Your task to perform on an android device: Is it going to rain this weekend? Image 0: 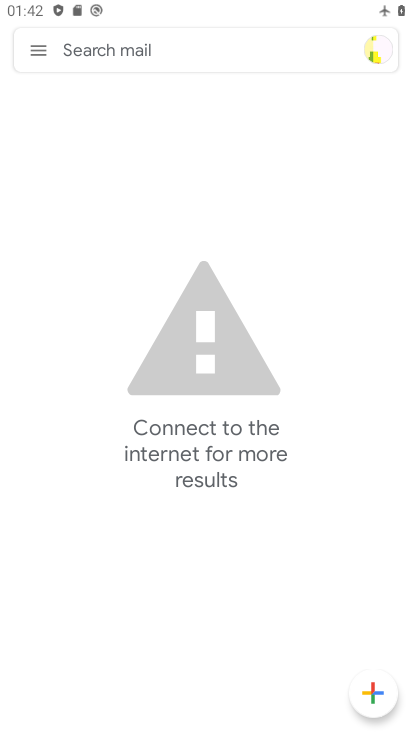
Step 0: press home button
Your task to perform on an android device: Is it going to rain this weekend? Image 1: 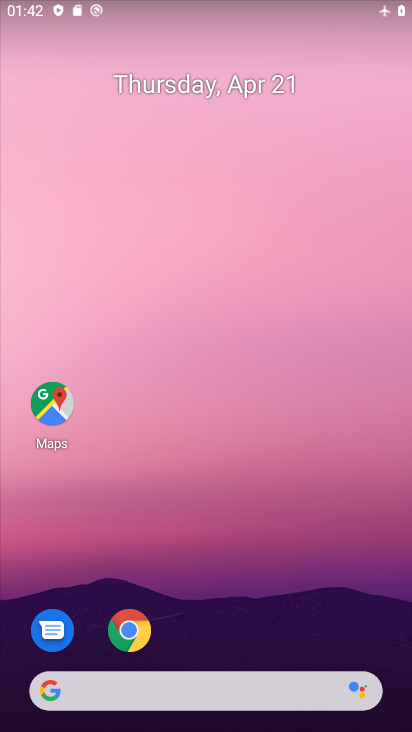
Step 1: drag from (266, 574) to (270, 47)
Your task to perform on an android device: Is it going to rain this weekend? Image 2: 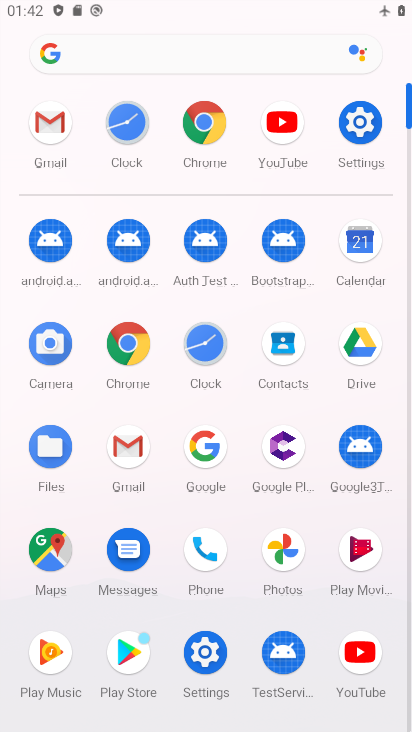
Step 2: click (169, 58)
Your task to perform on an android device: Is it going to rain this weekend? Image 3: 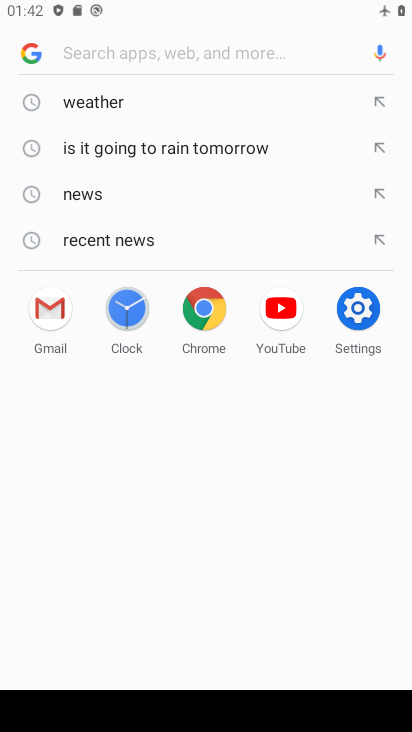
Step 3: click (163, 154)
Your task to perform on an android device: Is it going to rain this weekend? Image 4: 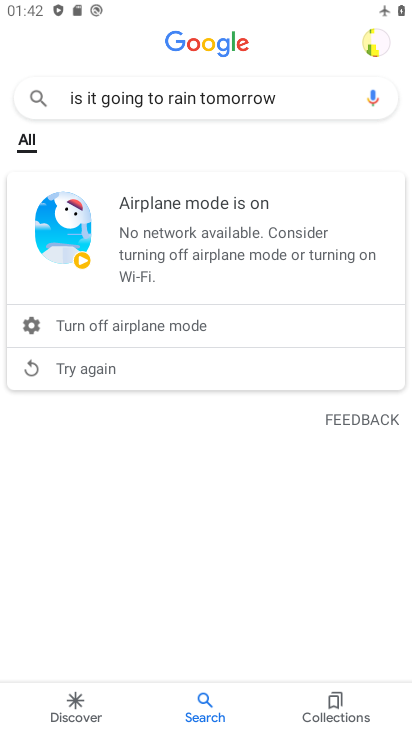
Step 4: task complete